Your task to perform on an android device: show emergency info Image 0: 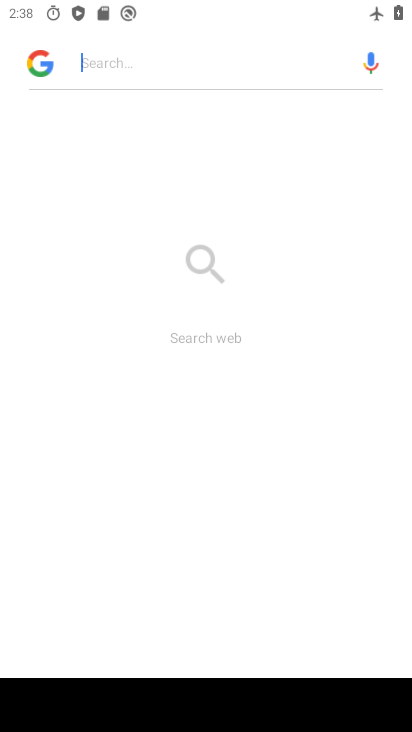
Step 0: press back button
Your task to perform on an android device: show emergency info Image 1: 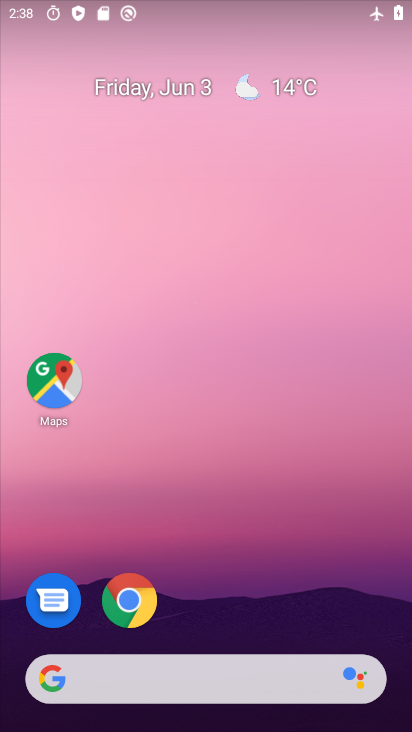
Step 1: drag from (279, 595) to (209, 33)
Your task to perform on an android device: show emergency info Image 2: 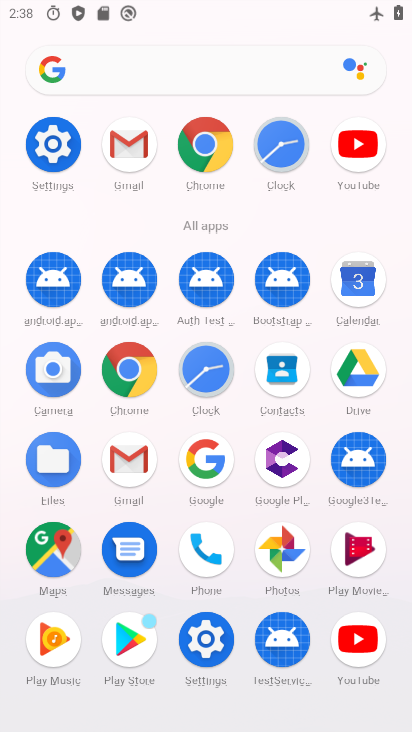
Step 2: click (55, 141)
Your task to perform on an android device: show emergency info Image 3: 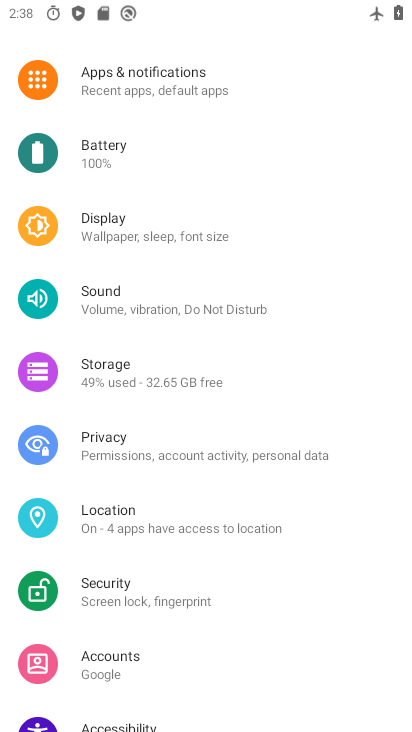
Step 3: drag from (300, 576) to (283, 97)
Your task to perform on an android device: show emergency info Image 4: 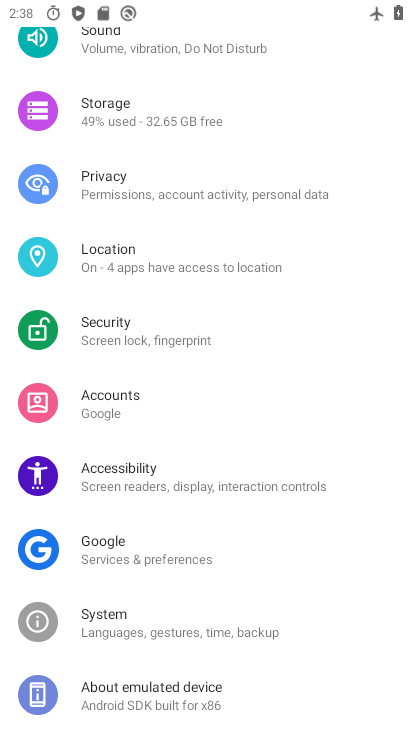
Step 4: click (218, 687)
Your task to perform on an android device: show emergency info Image 5: 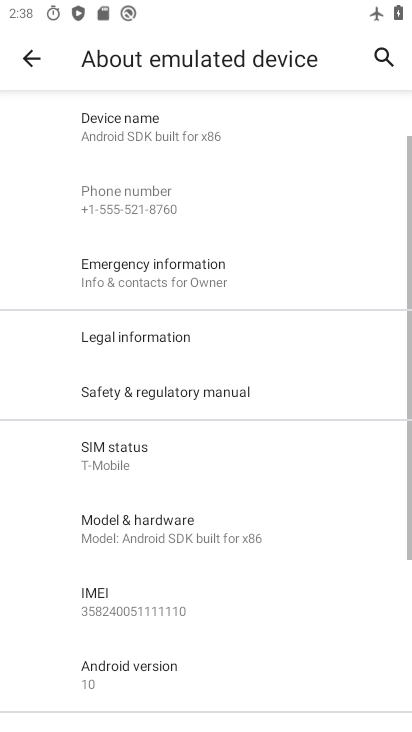
Step 5: drag from (319, 366) to (328, 129)
Your task to perform on an android device: show emergency info Image 6: 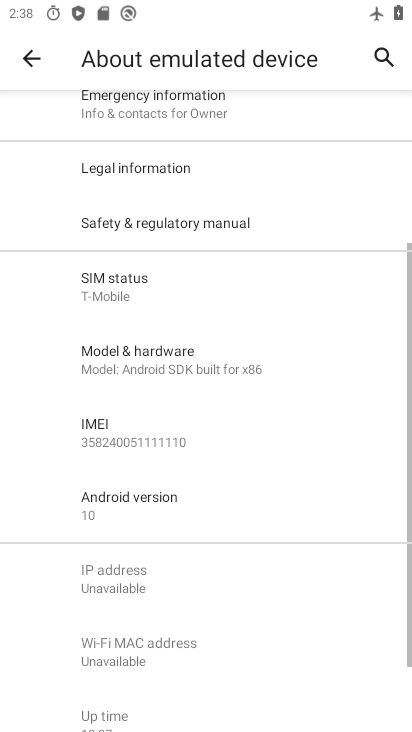
Step 6: drag from (321, 155) to (291, 495)
Your task to perform on an android device: show emergency info Image 7: 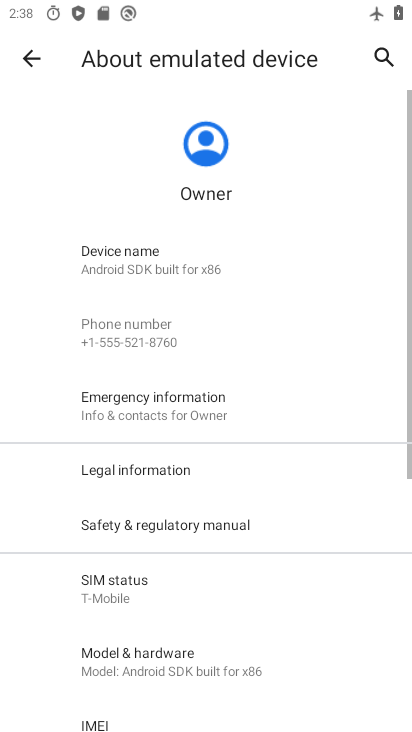
Step 7: click (328, 96)
Your task to perform on an android device: show emergency info Image 8: 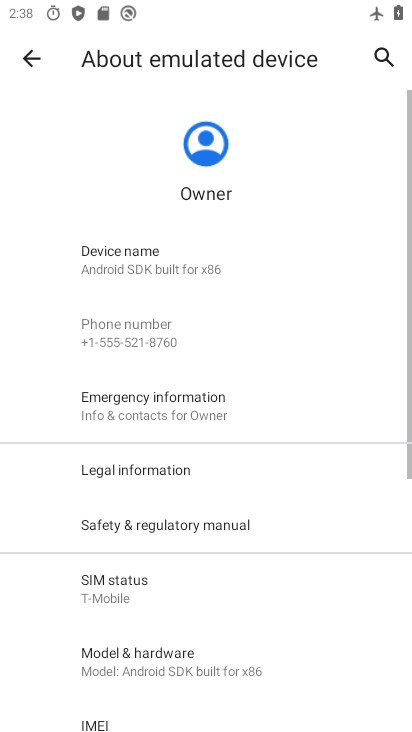
Step 8: task complete